Your task to perform on an android device: Go to Reddit.com Image 0: 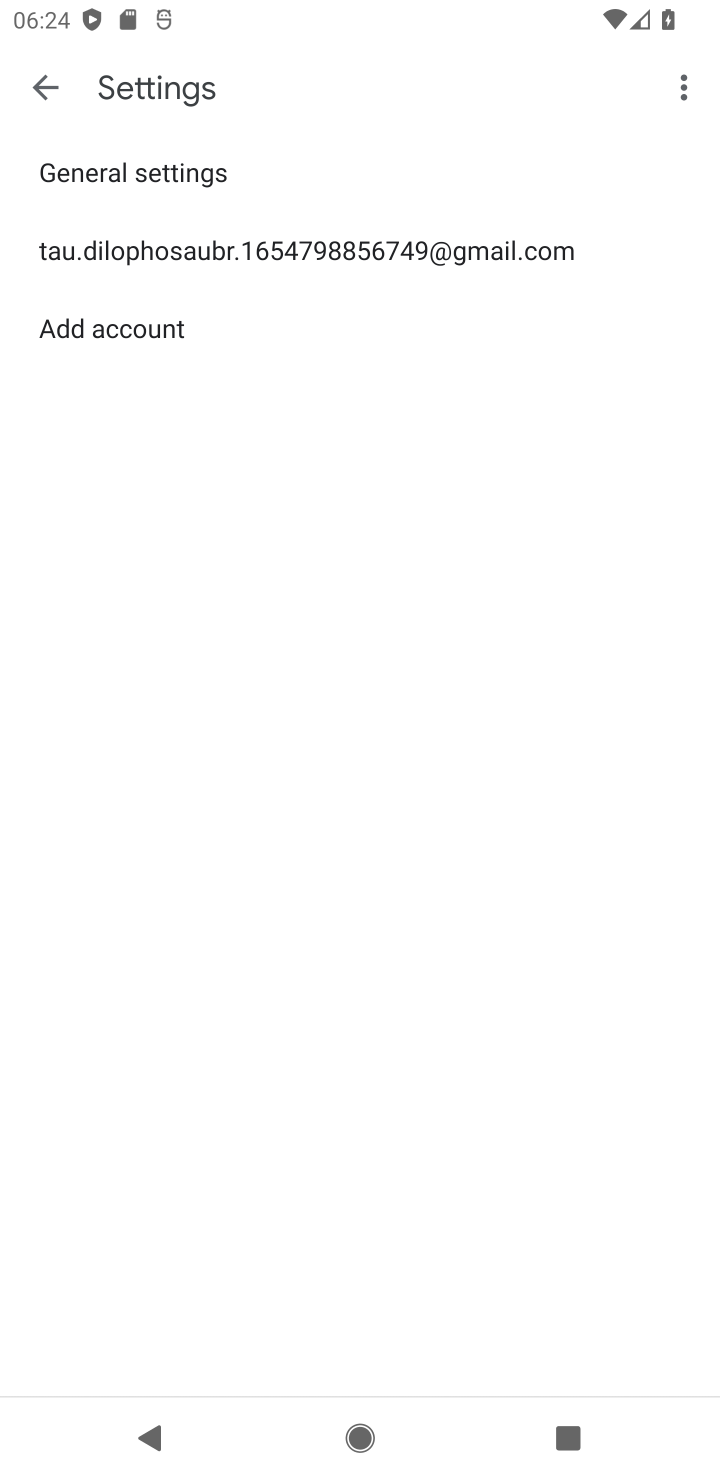
Step 0: press home button
Your task to perform on an android device: Go to Reddit.com Image 1: 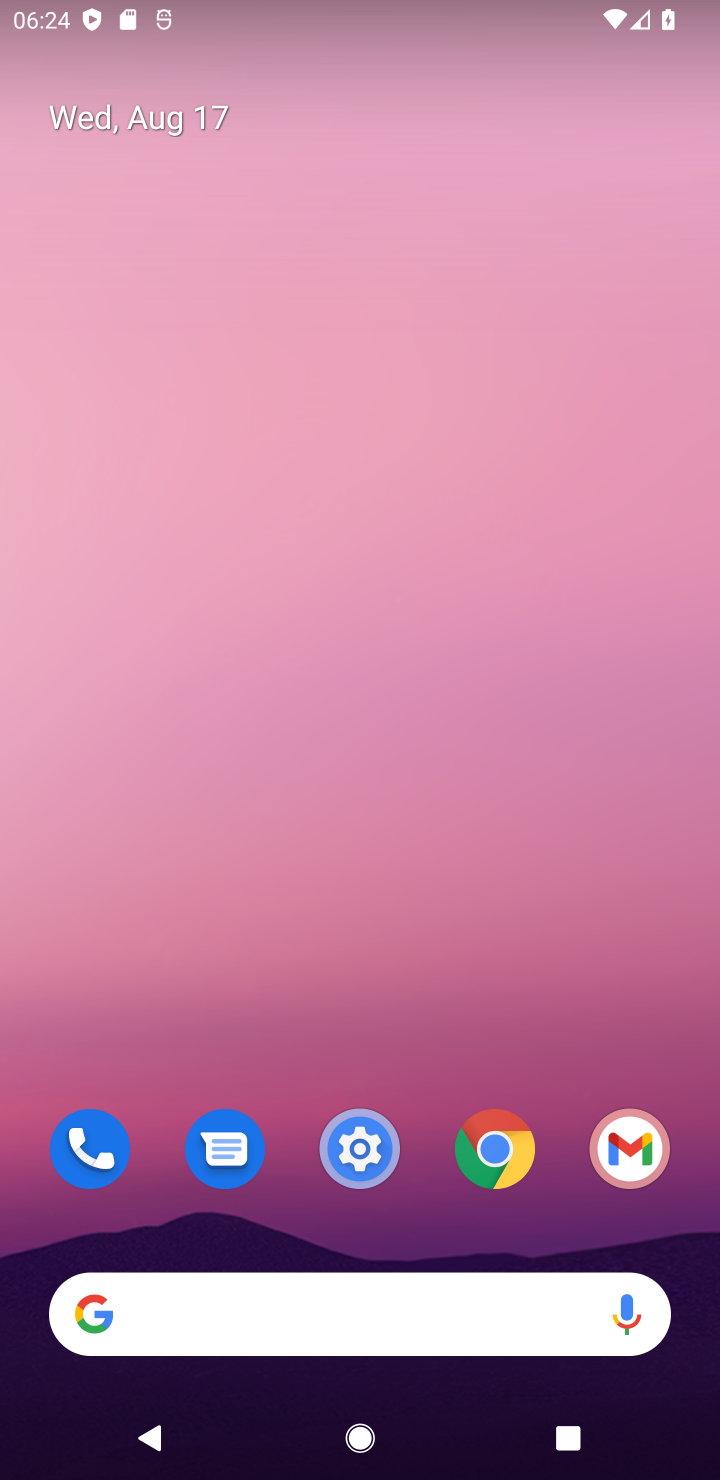
Step 1: click (485, 1154)
Your task to perform on an android device: Go to Reddit.com Image 2: 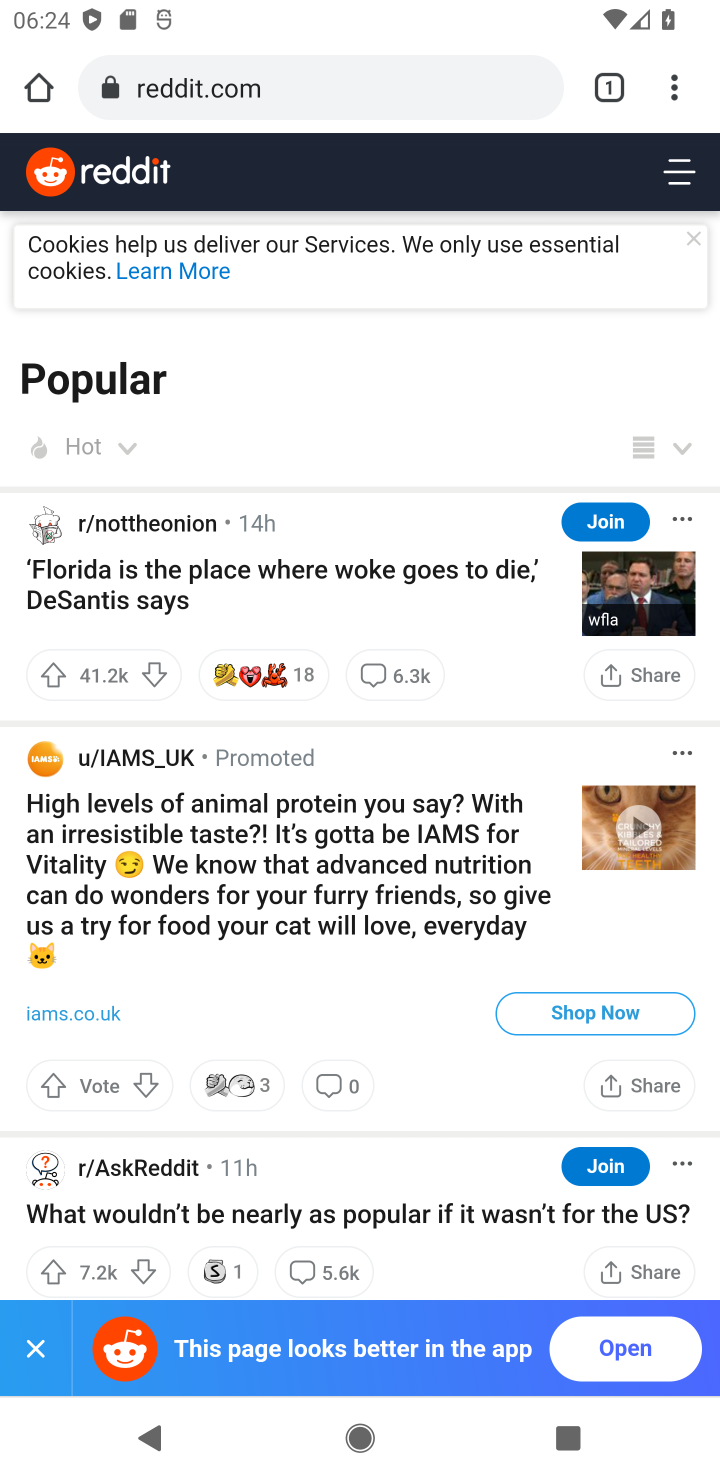
Step 2: task complete